Your task to perform on an android device: Turn off the flashlight Image 0: 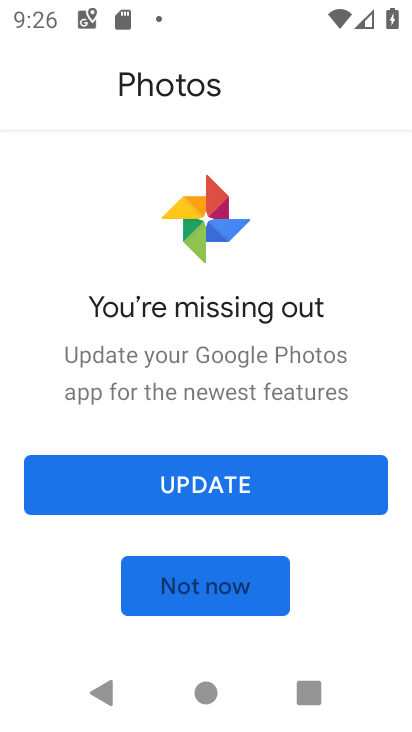
Step 0: press home button
Your task to perform on an android device: Turn off the flashlight Image 1: 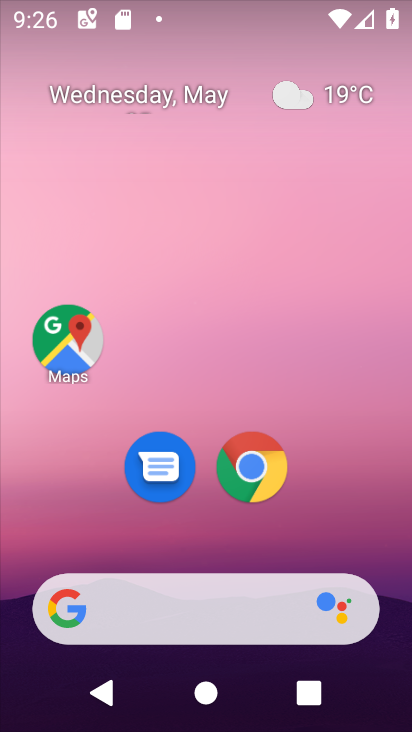
Step 1: drag from (270, 560) to (308, 32)
Your task to perform on an android device: Turn off the flashlight Image 2: 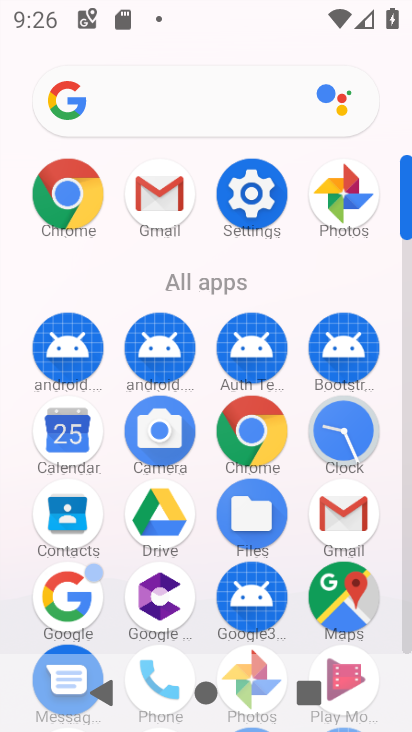
Step 2: click (259, 204)
Your task to perform on an android device: Turn off the flashlight Image 3: 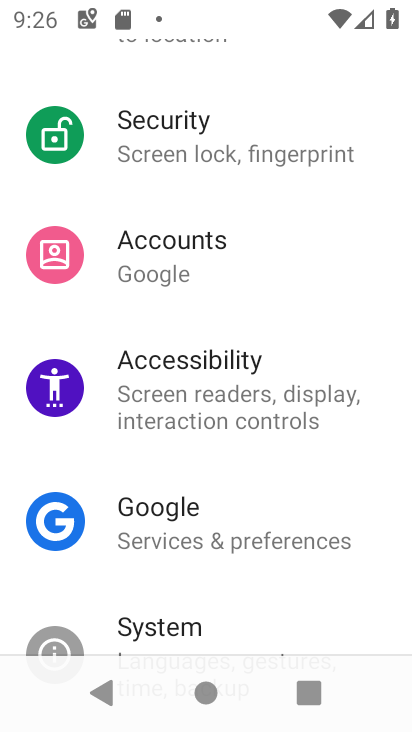
Step 3: drag from (210, 258) to (204, 601)
Your task to perform on an android device: Turn off the flashlight Image 4: 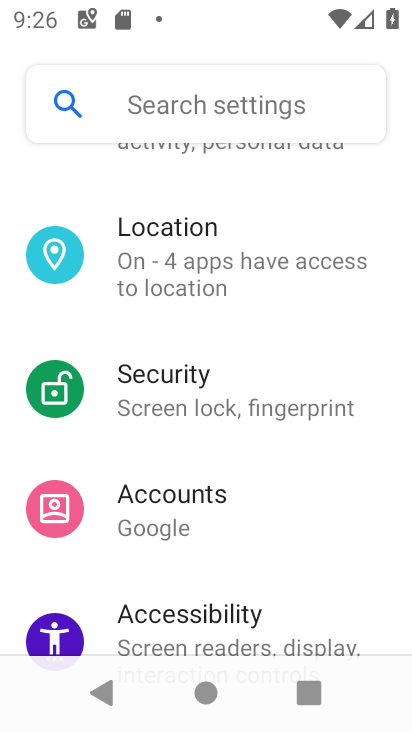
Step 4: drag from (245, 265) to (186, 601)
Your task to perform on an android device: Turn off the flashlight Image 5: 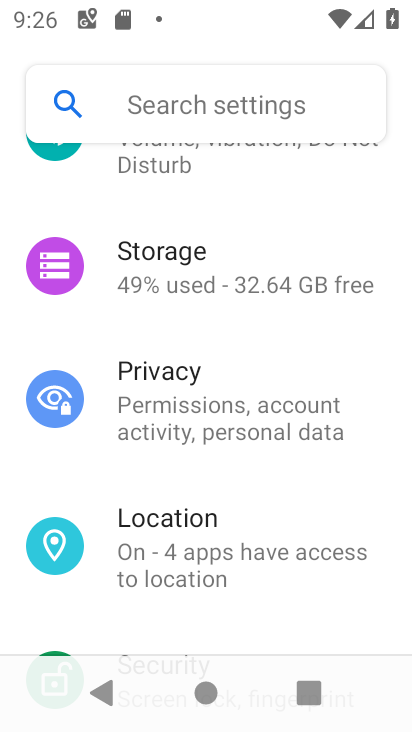
Step 5: drag from (203, 274) to (207, 622)
Your task to perform on an android device: Turn off the flashlight Image 6: 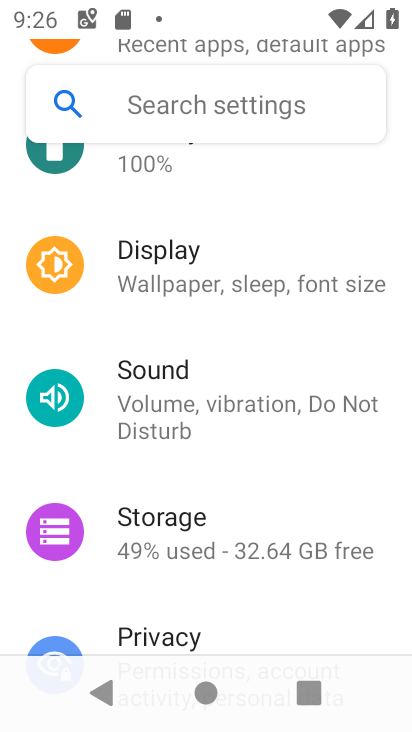
Step 6: click (206, 306)
Your task to perform on an android device: Turn off the flashlight Image 7: 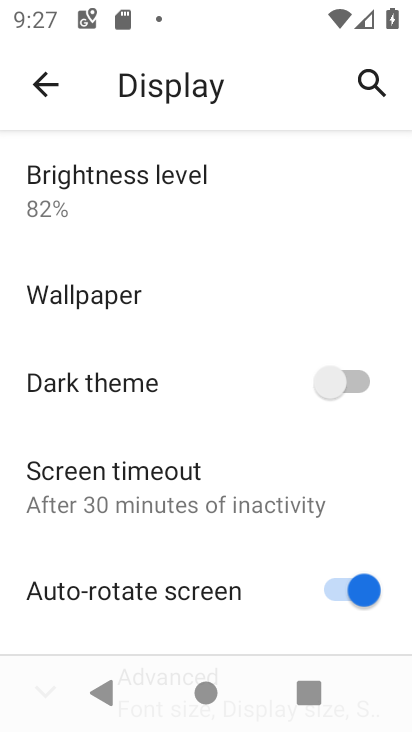
Step 7: task complete